Your task to perform on an android device: all mails in gmail Image 0: 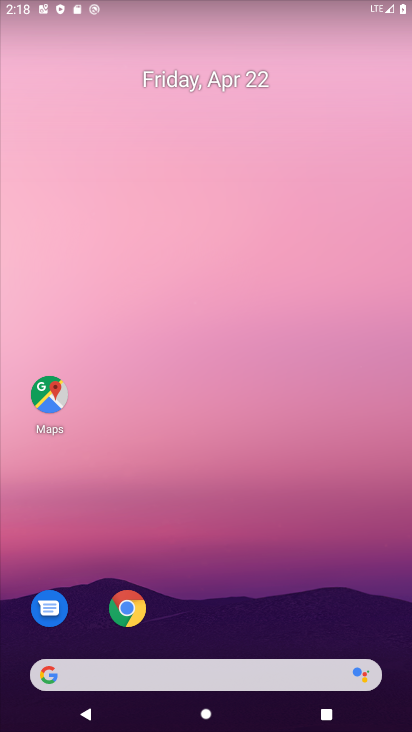
Step 0: drag from (240, 676) to (204, 209)
Your task to perform on an android device: all mails in gmail Image 1: 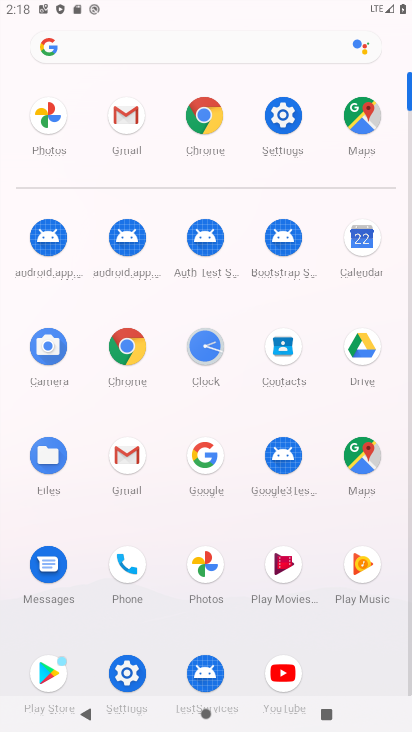
Step 1: click (139, 116)
Your task to perform on an android device: all mails in gmail Image 2: 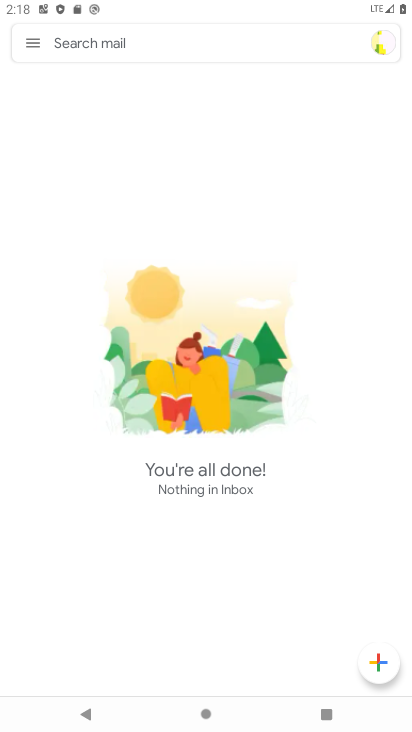
Step 2: click (39, 48)
Your task to perform on an android device: all mails in gmail Image 3: 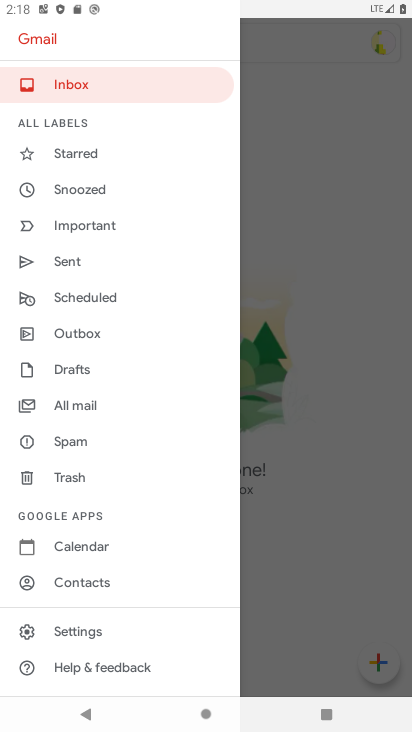
Step 3: click (97, 409)
Your task to perform on an android device: all mails in gmail Image 4: 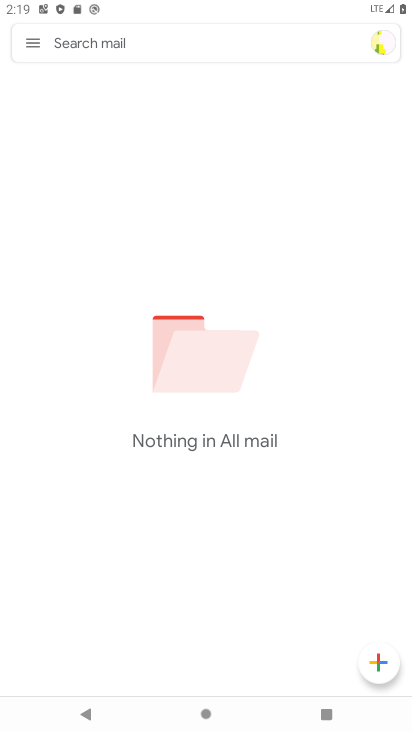
Step 4: task complete